Your task to perform on an android device: see creations saved in the google photos Image 0: 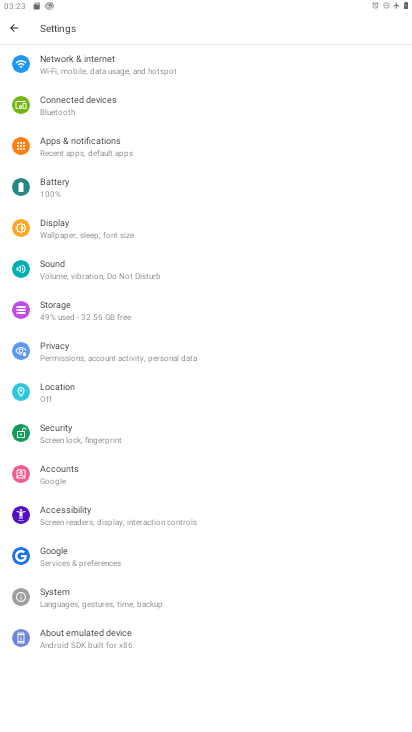
Step 0: press home button
Your task to perform on an android device: see creations saved in the google photos Image 1: 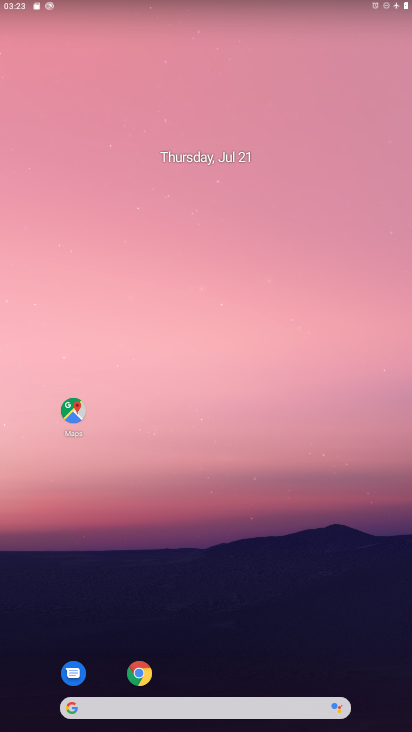
Step 1: drag from (203, 635) to (119, 193)
Your task to perform on an android device: see creations saved in the google photos Image 2: 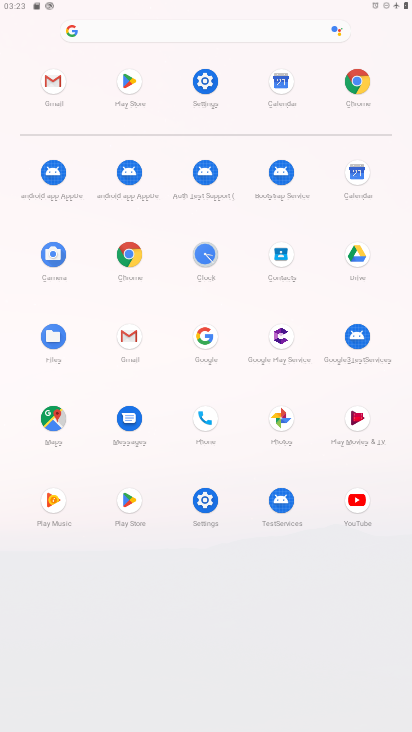
Step 2: click (277, 406)
Your task to perform on an android device: see creations saved in the google photos Image 3: 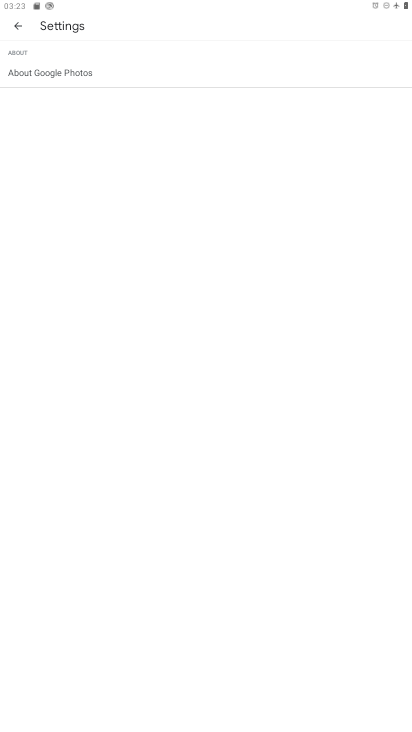
Step 3: click (20, 22)
Your task to perform on an android device: see creations saved in the google photos Image 4: 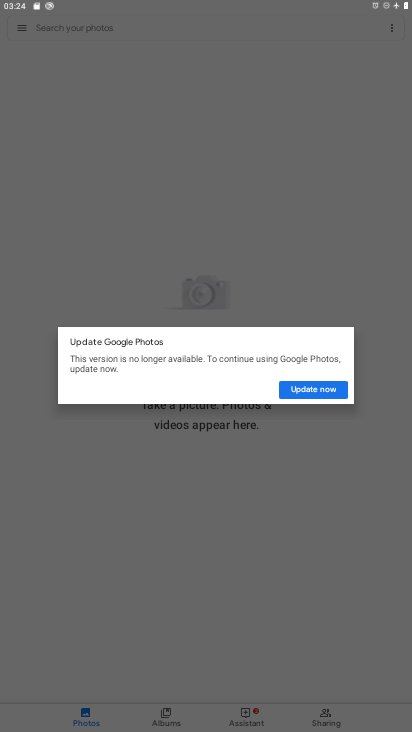
Step 4: task complete